Your task to perform on an android device: make emails show in primary in the gmail app Image 0: 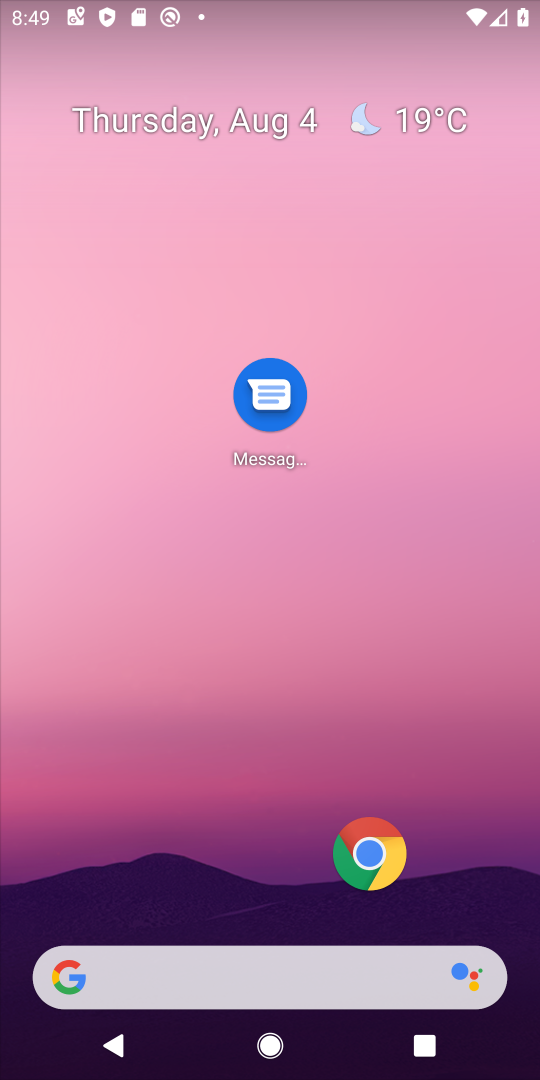
Step 0: drag from (252, 828) to (228, 365)
Your task to perform on an android device: make emails show in primary in the gmail app Image 1: 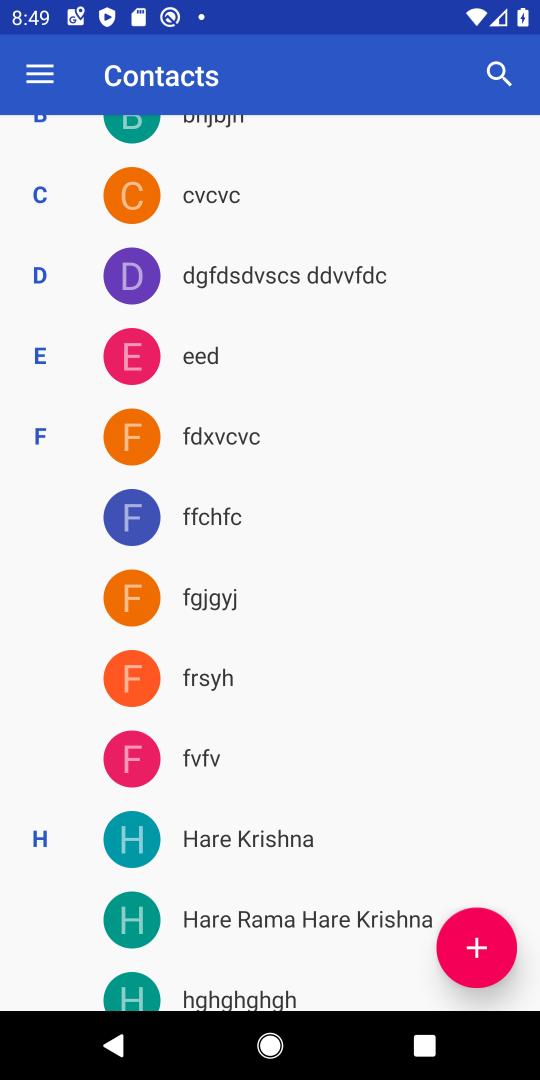
Step 1: press home button
Your task to perform on an android device: make emails show in primary in the gmail app Image 2: 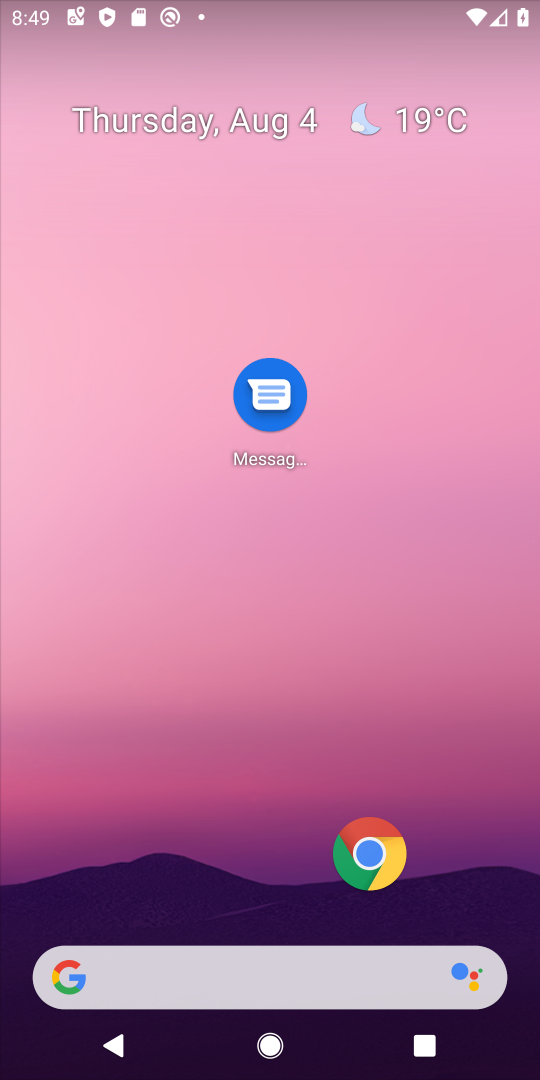
Step 2: drag from (203, 916) to (144, 452)
Your task to perform on an android device: make emails show in primary in the gmail app Image 3: 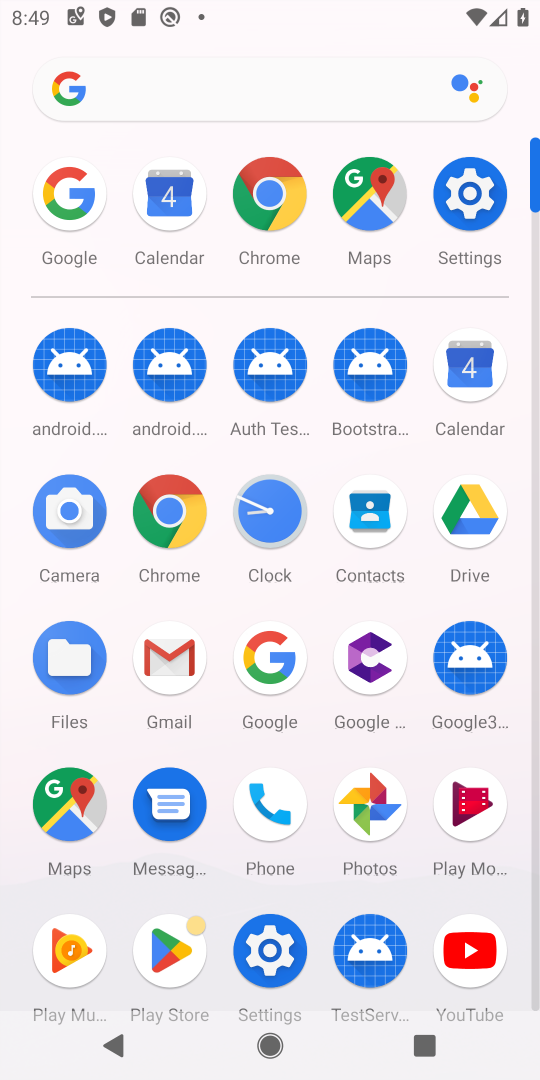
Step 3: click (163, 667)
Your task to perform on an android device: make emails show in primary in the gmail app Image 4: 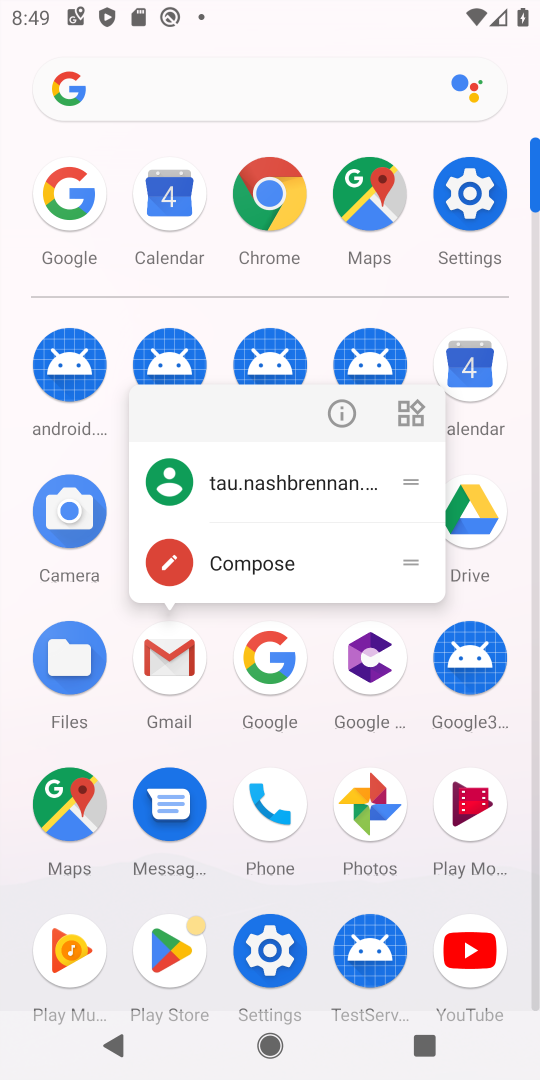
Step 4: click (154, 648)
Your task to perform on an android device: make emails show in primary in the gmail app Image 5: 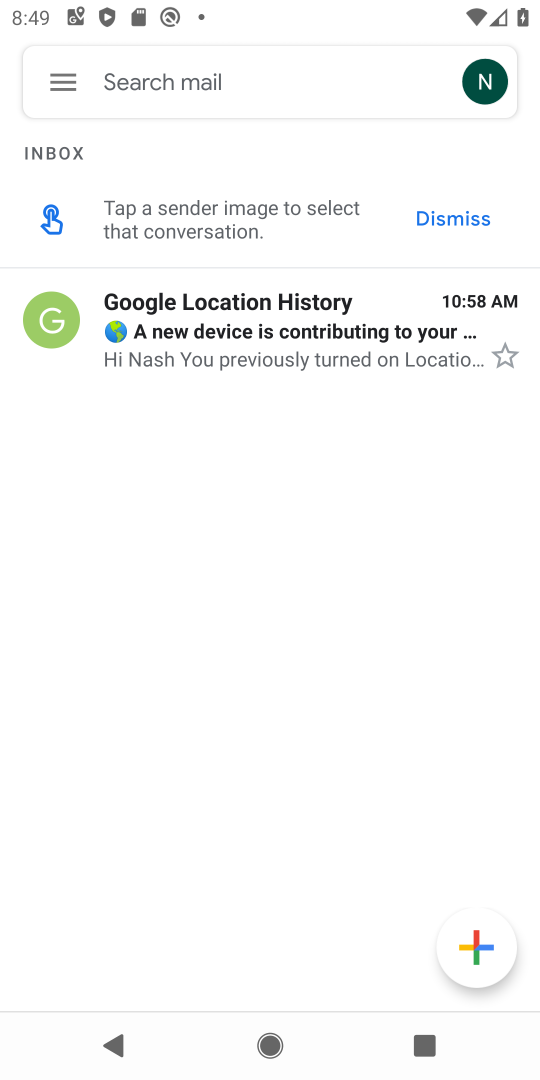
Step 5: click (49, 92)
Your task to perform on an android device: make emails show in primary in the gmail app Image 6: 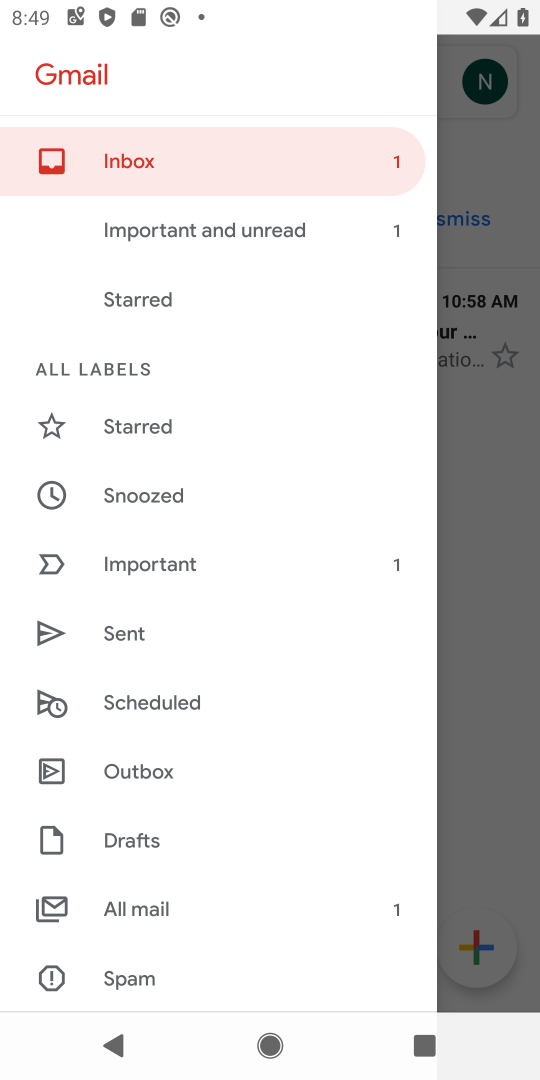
Step 6: drag from (155, 987) to (125, 496)
Your task to perform on an android device: make emails show in primary in the gmail app Image 7: 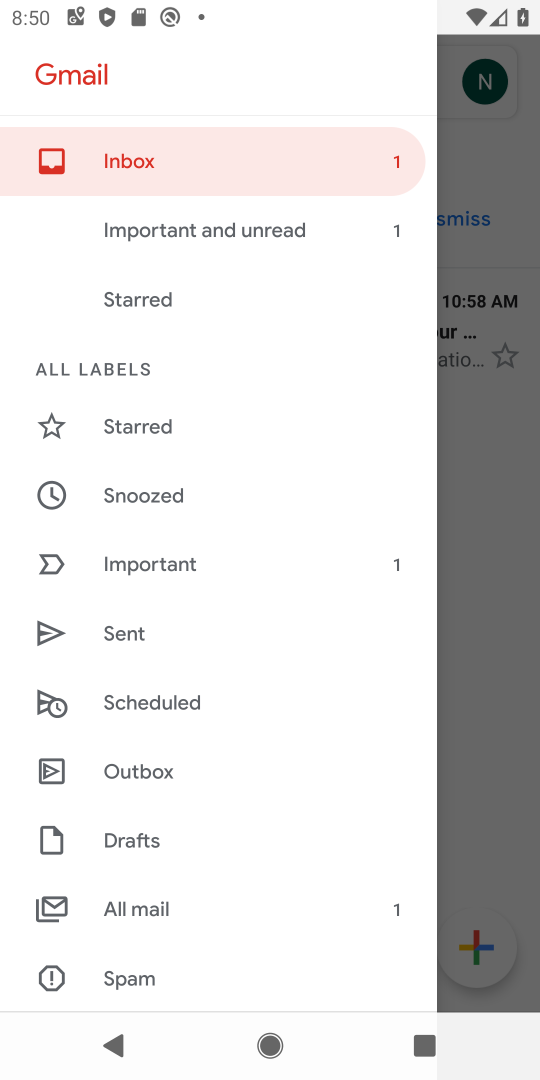
Step 7: drag from (120, 908) to (120, 357)
Your task to perform on an android device: make emails show in primary in the gmail app Image 8: 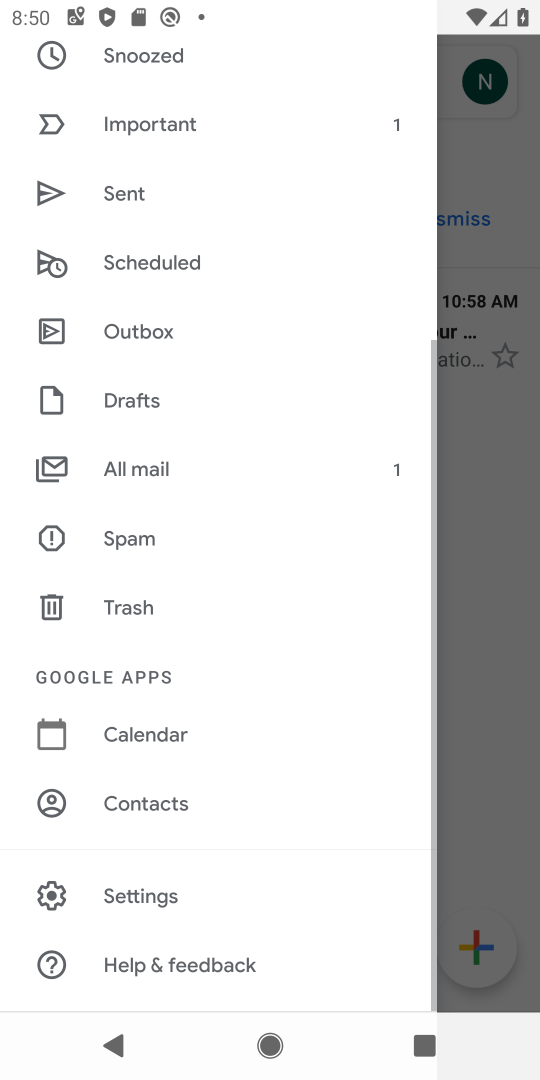
Step 8: click (124, 895)
Your task to perform on an android device: make emails show in primary in the gmail app Image 9: 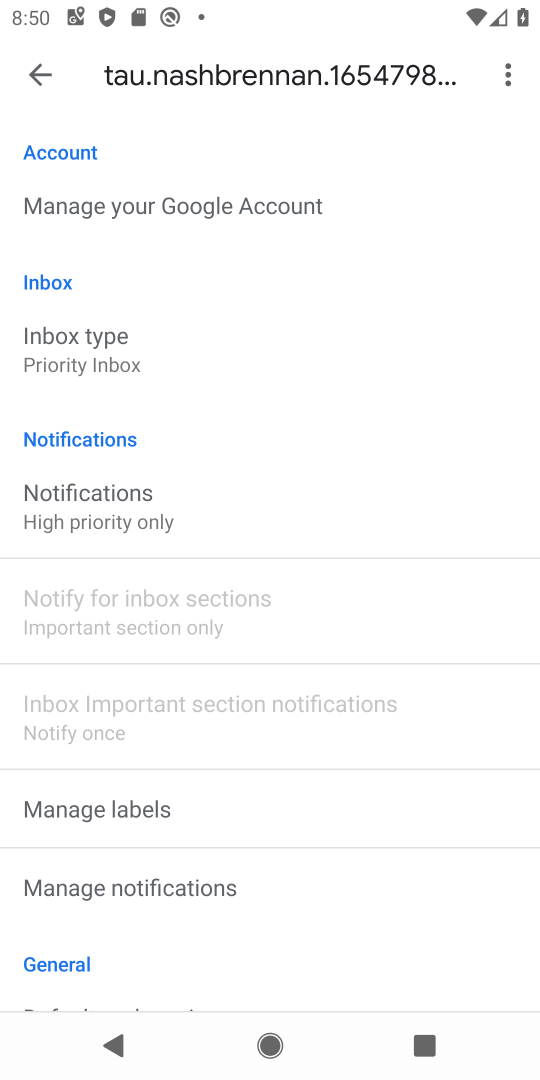
Step 9: drag from (143, 955) to (143, 441)
Your task to perform on an android device: make emails show in primary in the gmail app Image 10: 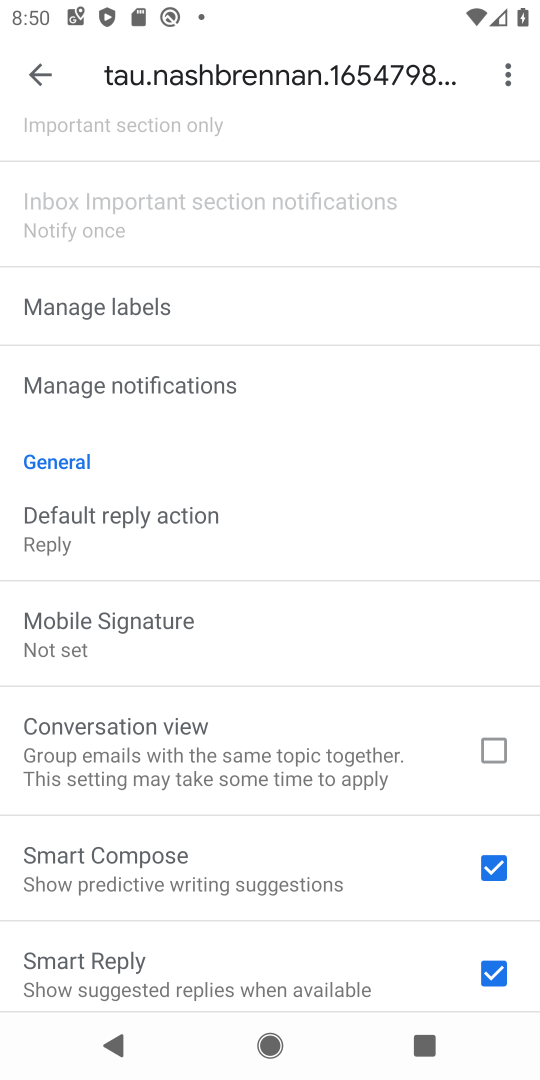
Step 10: drag from (134, 949) to (138, 424)
Your task to perform on an android device: make emails show in primary in the gmail app Image 11: 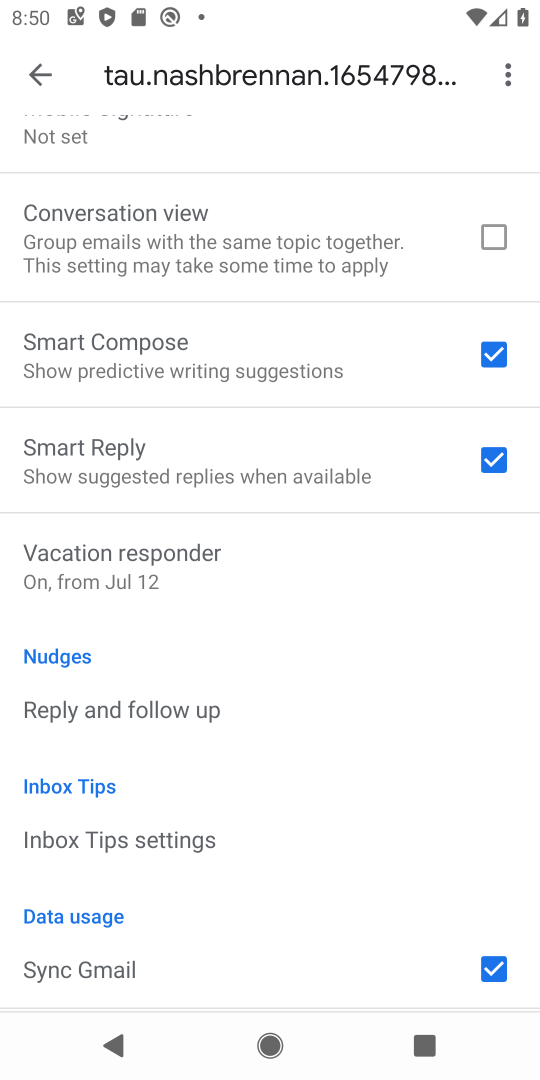
Step 11: drag from (94, 908) to (63, 494)
Your task to perform on an android device: make emails show in primary in the gmail app Image 12: 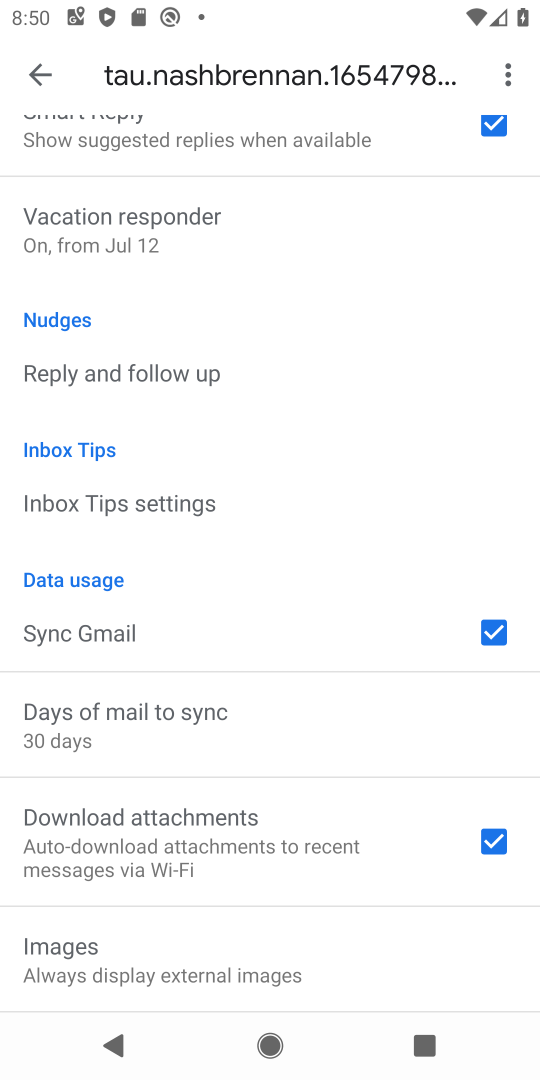
Step 12: drag from (117, 906) to (116, 538)
Your task to perform on an android device: make emails show in primary in the gmail app Image 13: 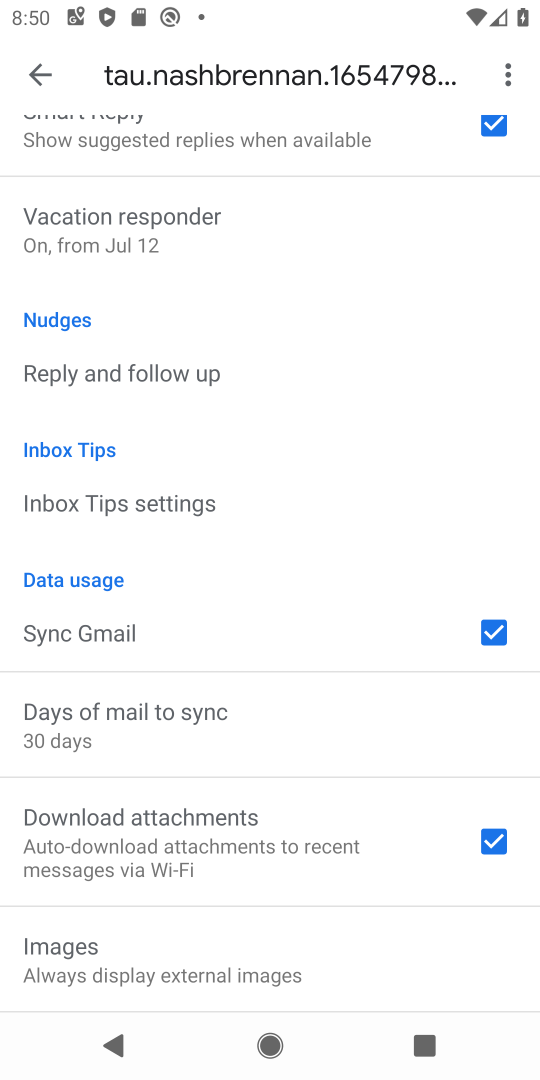
Step 13: drag from (98, 169) to (97, 816)
Your task to perform on an android device: make emails show in primary in the gmail app Image 14: 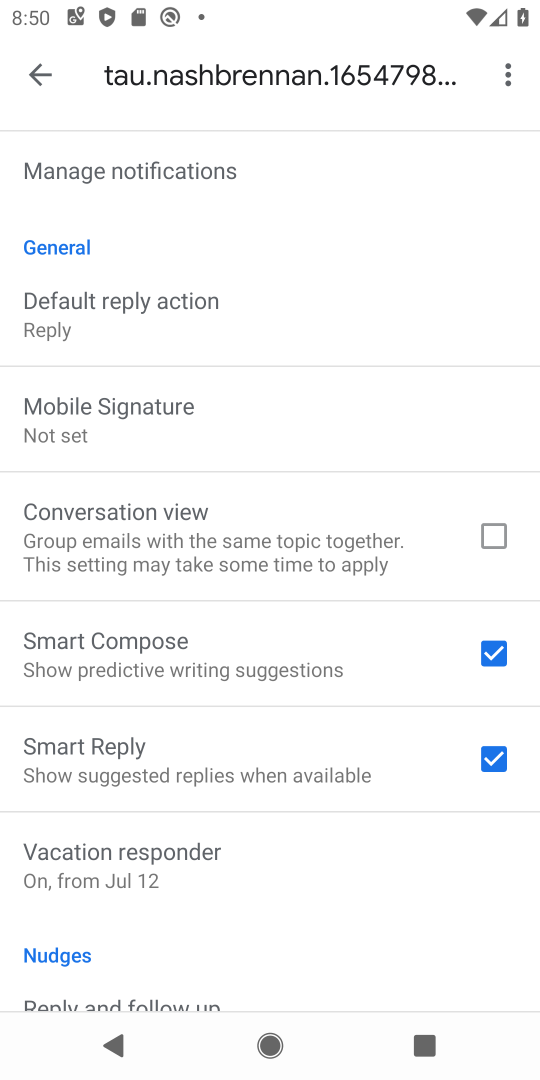
Step 14: drag from (139, 190) to (171, 662)
Your task to perform on an android device: make emails show in primary in the gmail app Image 15: 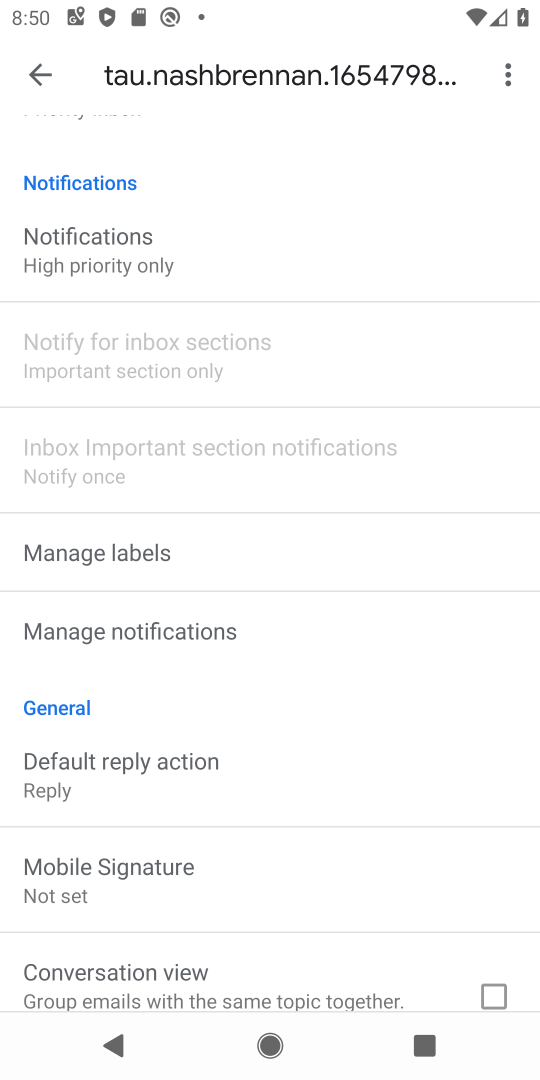
Step 15: drag from (45, 213) to (147, 823)
Your task to perform on an android device: make emails show in primary in the gmail app Image 16: 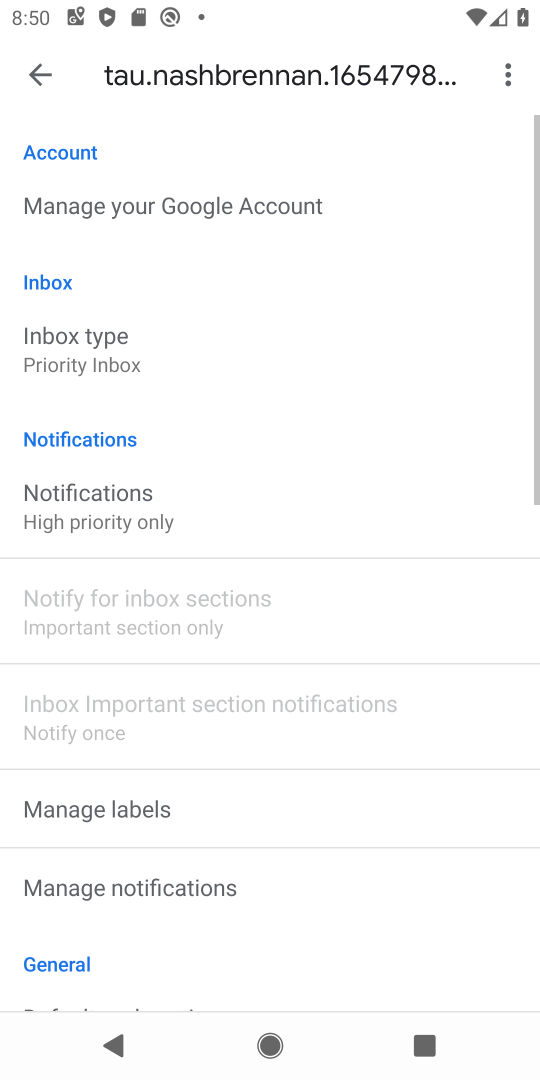
Step 16: click (76, 345)
Your task to perform on an android device: make emails show in primary in the gmail app Image 17: 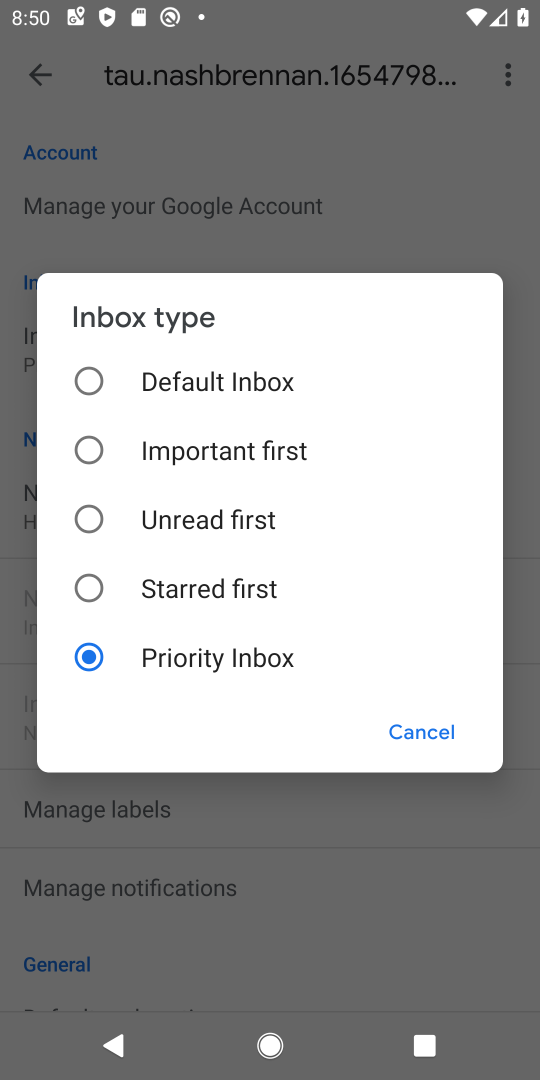
Step 17: click (148, 389)
Your task to perform on an android device: make emails show in primary in the gmail app Image 18: 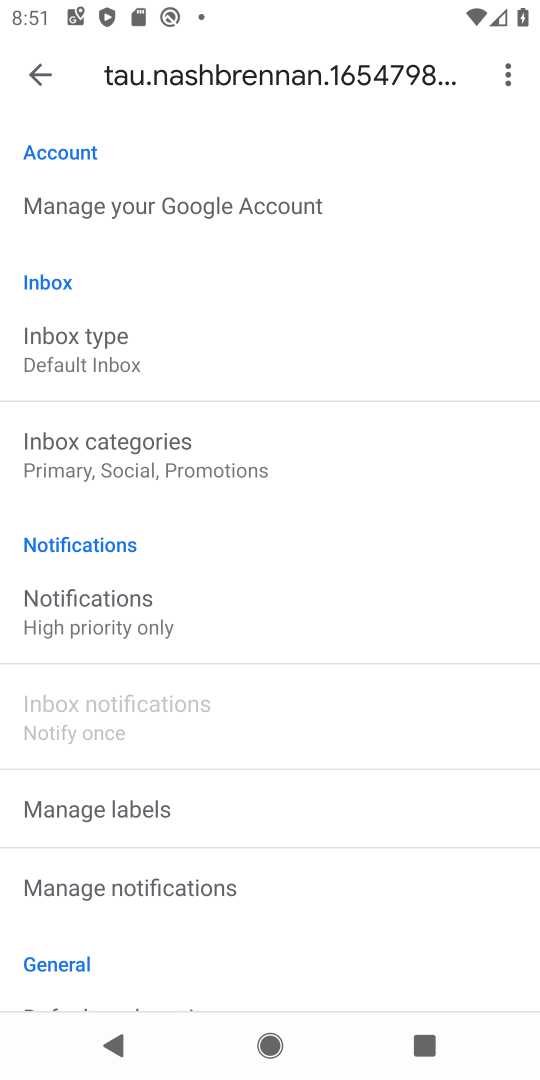
Step 18: click (79, 465)
Your task to perform on an android device: make emails show in primary in the gmail app Image 19: 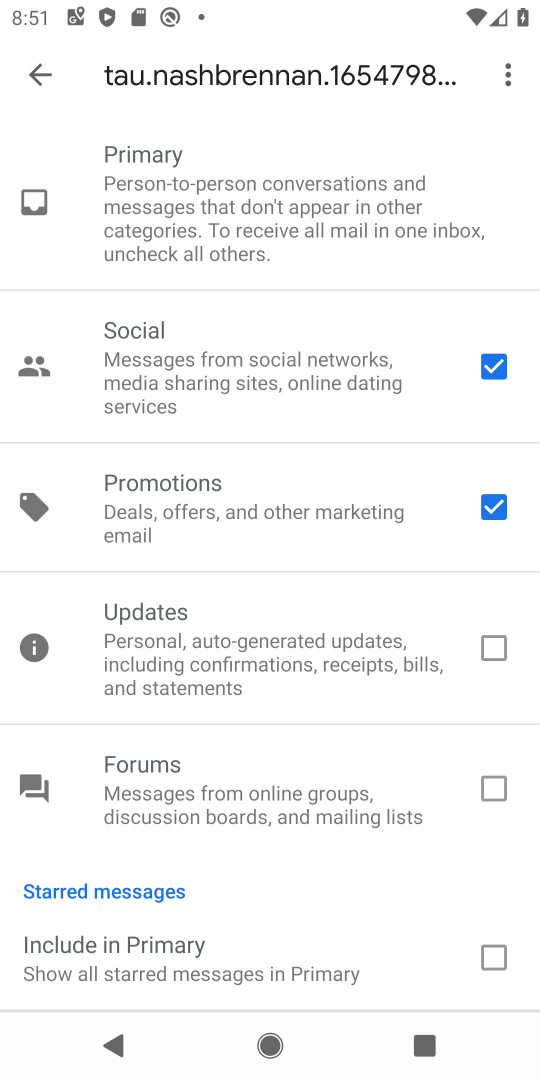
Step 19: click (498, 508)
Your task to perform on an android device: make emails show in primary in the gmail app Image 20: 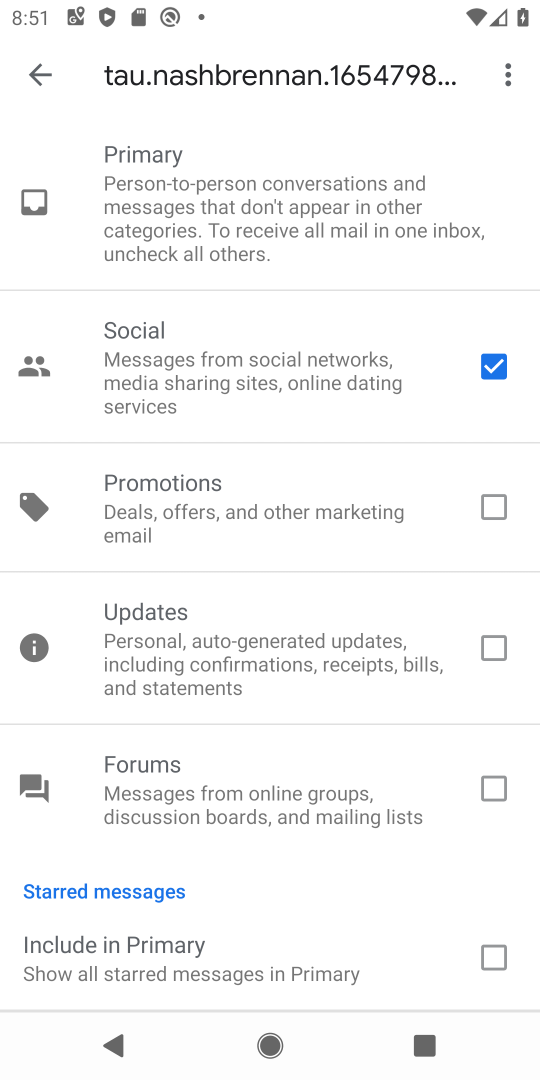
Step 20: click (484, 369)
Your task to perform on an android device: make emails show in primary in the gmail app Image 21: 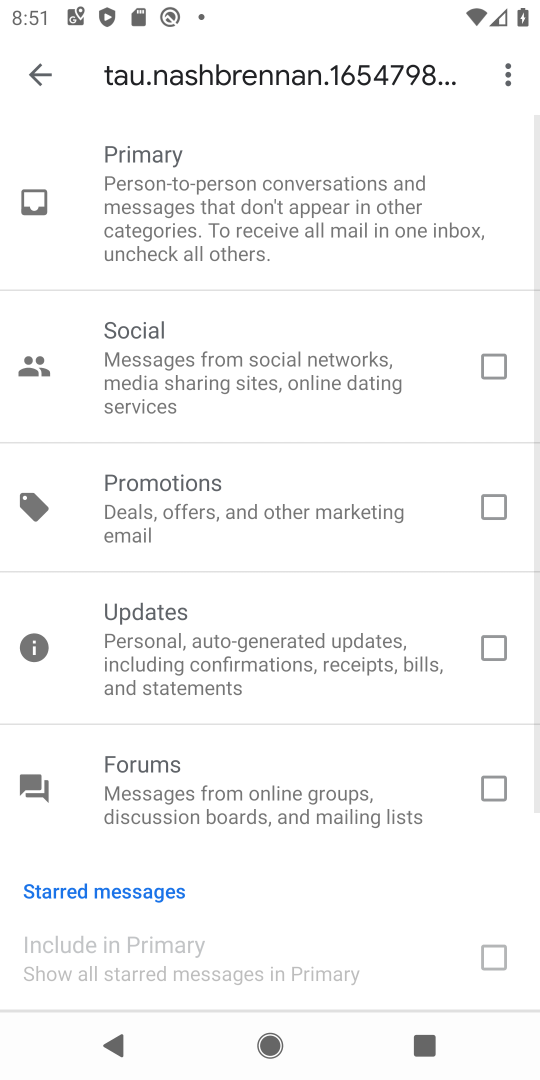
Step 21: click (27, 82)
Your task to perform on an android device: make emails show in primary in the gmail app Image 22: 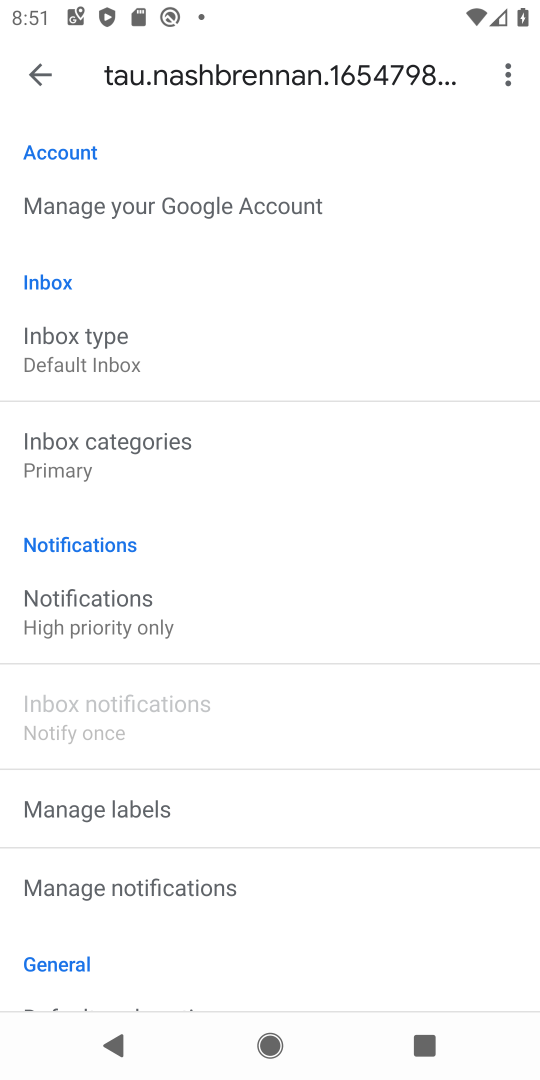
Step 22: task complete